Your task to perform on an android device: Search for vegetarian restaurants on Maps Image 0: 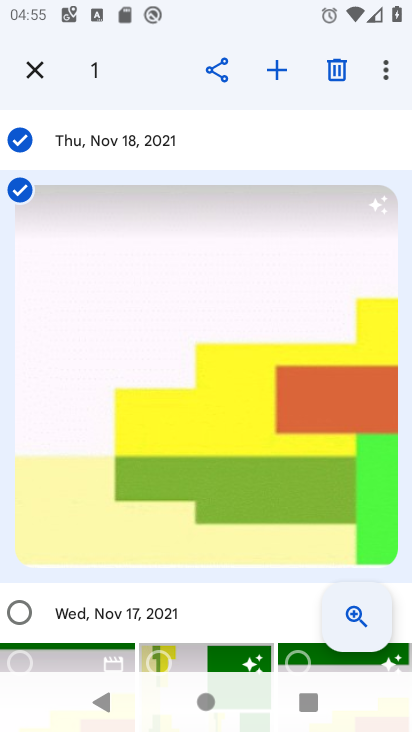
Step 0: press home button
Your task to perform on an android device: Search for vegetarian restaurants on Maps Image 1: 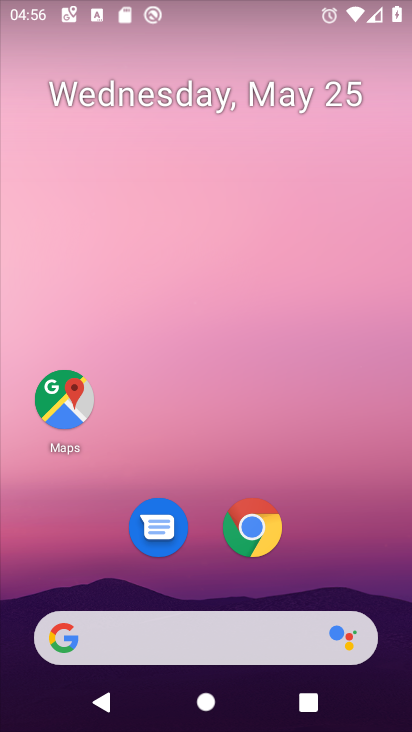
Step 1: drag from (203, 494) to (279, 47)
Your task to perform on an android device: Search for vegetarian restaurants on Maps Image 2: 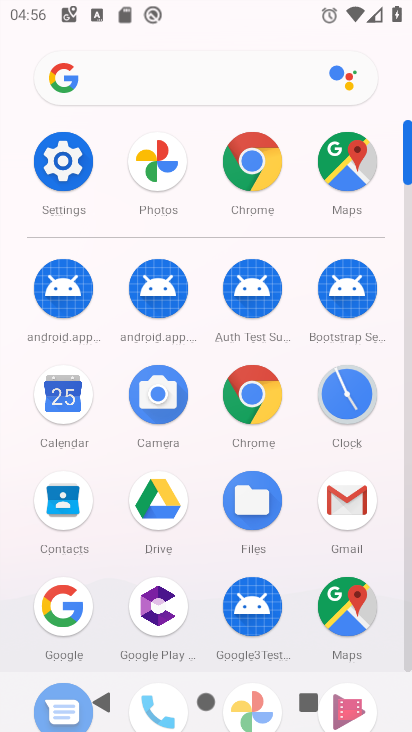
Step 2: click (355, 596)
Your task to perform on an android device: Search for vegetarian restaurants on Maps Image 3: 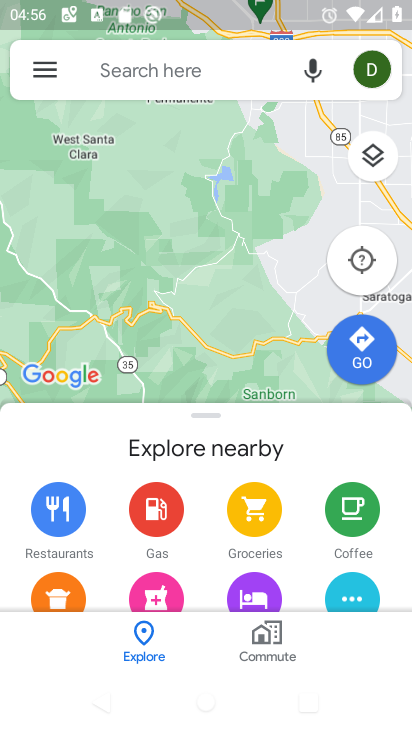
Step 3: click (177, 80)
Your task to perform on an android device: Search for vegetarian restaurants on Maps Image 4: 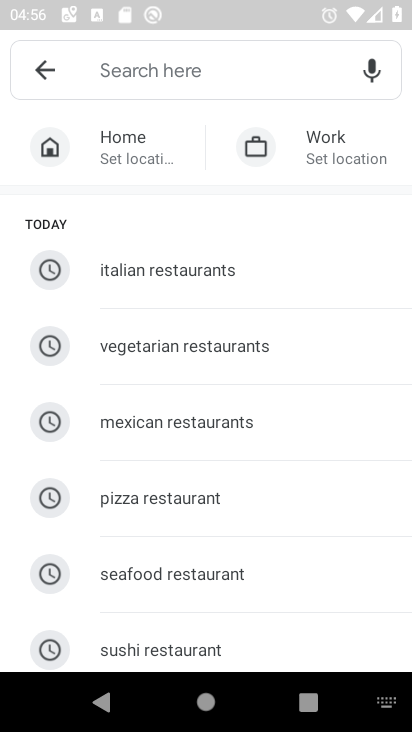
Step 4: type "vegetarian restaurants"
Your task to perform on an android device: Search for vegetarian restaurants on Maps Image 5: 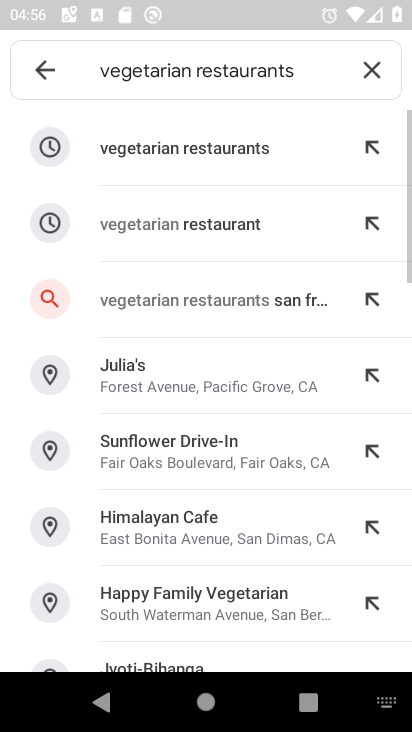
Step 5: click (193, 154)
Your task to perform on an android device: Search for vegetarian restaurants on Maps Image 6: 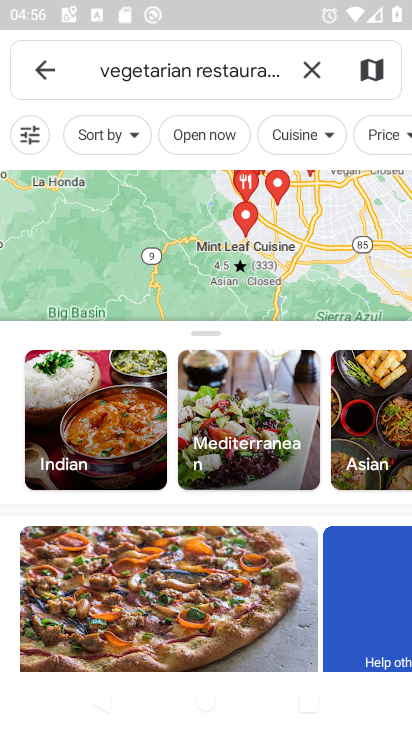
Step 6: task complete